Your task to perform on an android device: add a contact Image 0: 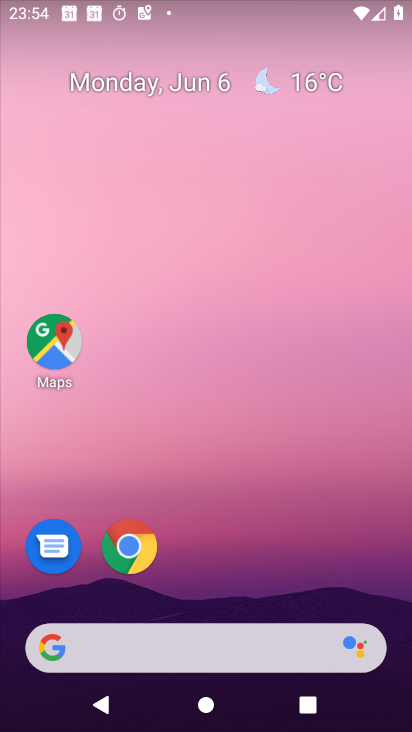
Step 0: drag from (214, 604) to (277, 4)
Your task to perform on an android device: add a contact Image 1: 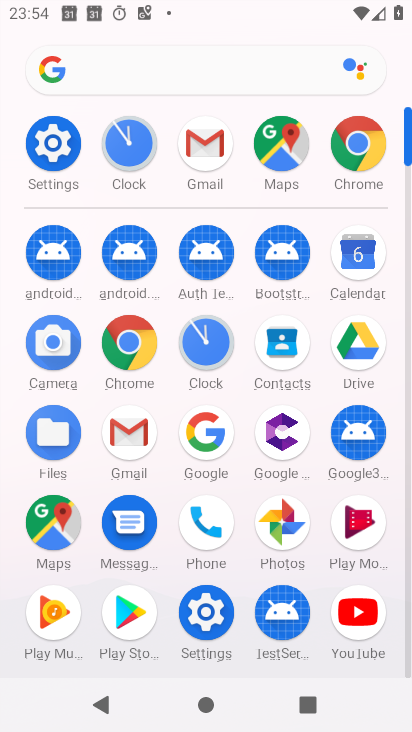
Step 1: click (278, 364)
Your task to perform on an android device: add a contact Image 2: 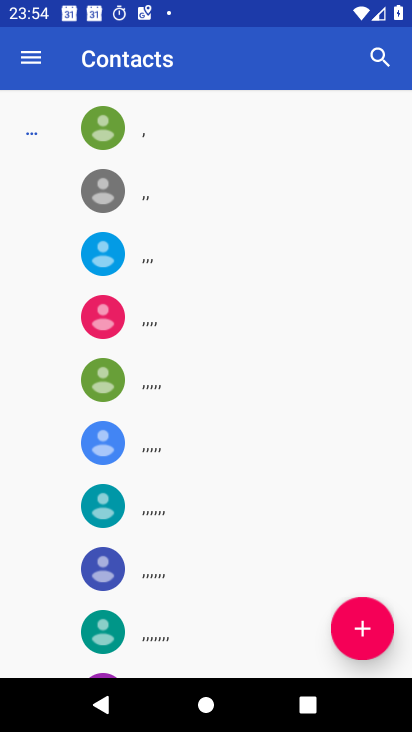
Step 2: click (351, 635)
Your task to perform on an android device: add a contact Image 3: 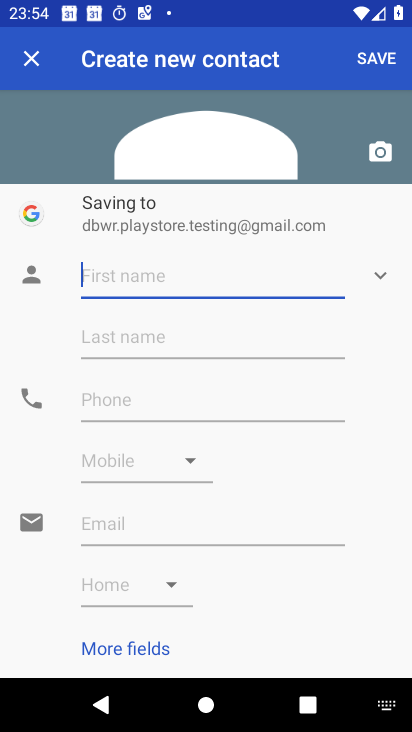
Step 3: type "kosem"
Your task to perform on an android device: add a contact Image 4: 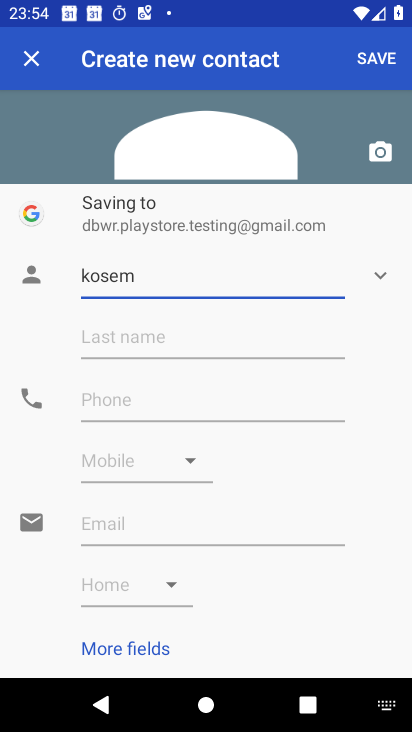
Step 4: click (364, 49)
Your task to perform on an android device: add a contact Image 5: 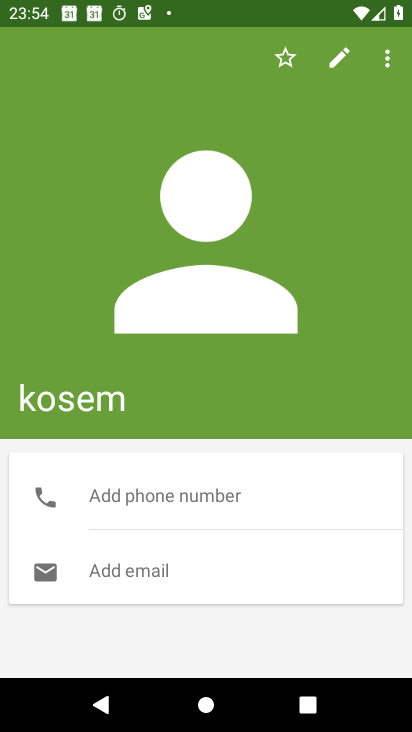
Step 5: task complete